Your task to perform on an android device: visit the assistant section in the google photos Image 0: 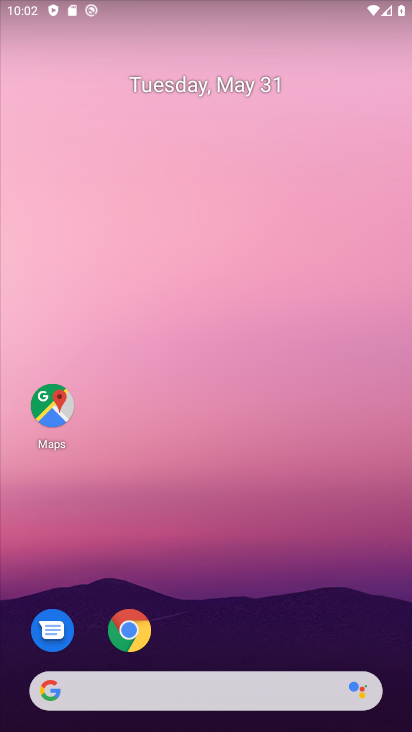
Step 0: press home button
Your task to perform on an android device: visit the assistant section in the google photos Image 1: 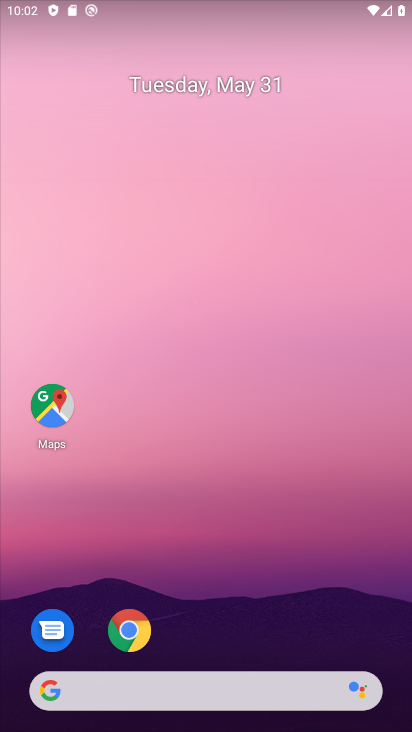
Step 1: drag from (327, 627) to (288, 208)
Your task to perform on an android device: visit the assistant section in the google photos Image 2: 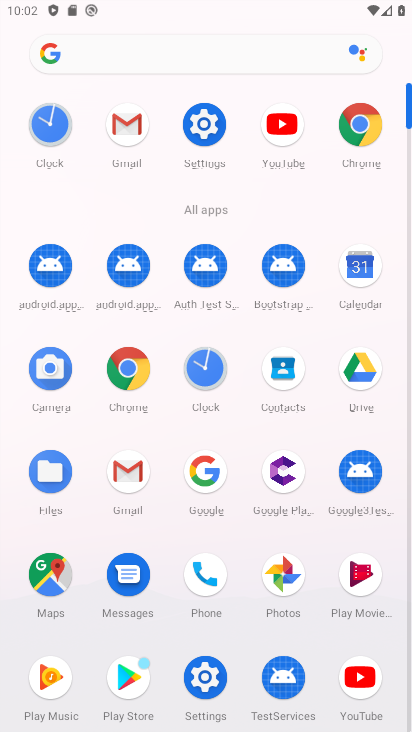
Step 2: click (287, 580)
Your task to perform on an android device: visit the assistant section in the google photos Image 3: 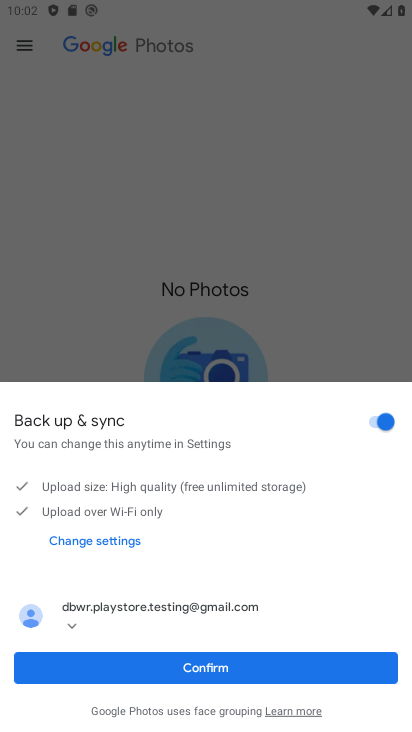
Step 3: click (146, 665)
Your task to perform on an android device: visit the assistant section in the google photos Image 4: 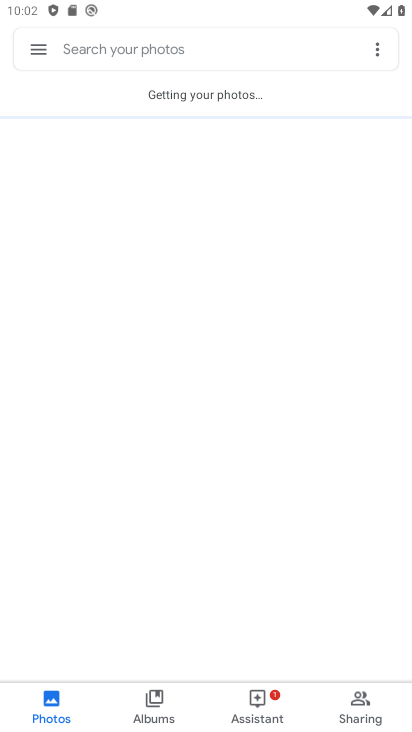
Step 4: click (254, 704)
Your task to perform on an android device: visit the assistant section in the google photos Image 5: 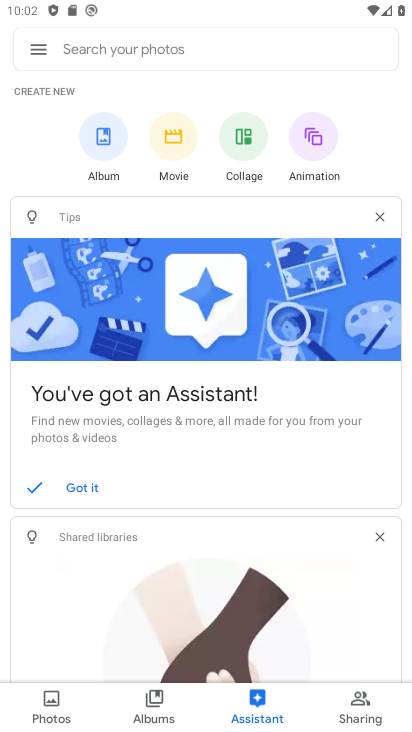
Step 5: task complete